Your task to perform on an android device: Check the weather Image 0: 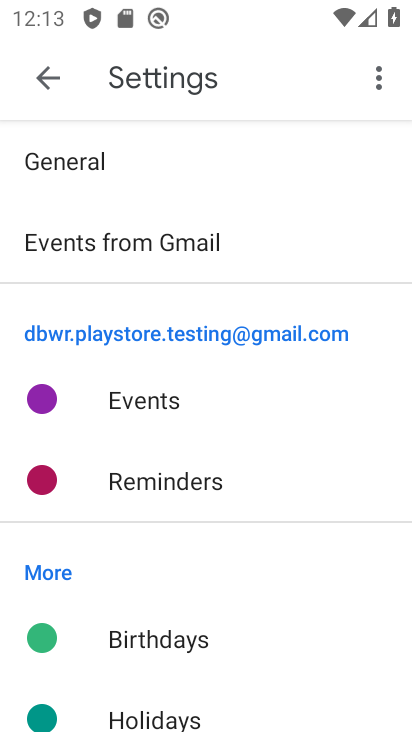
Step 0: press home button
Your task to perform on an android device: Check the weather Image 1: 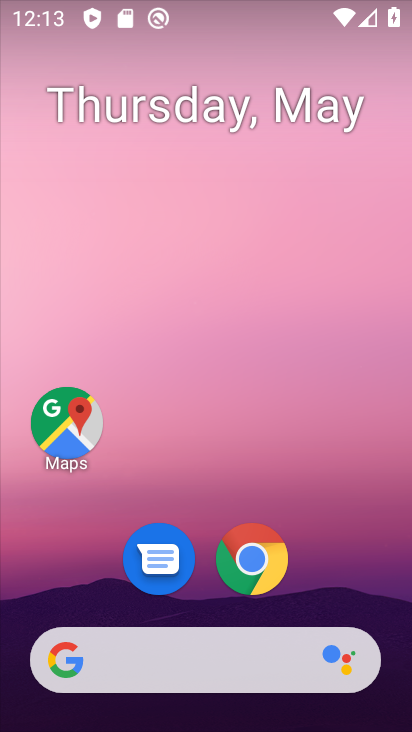
Step 1: click (243, 580)
Your task to perform on an android device: Check the weather Image 2: 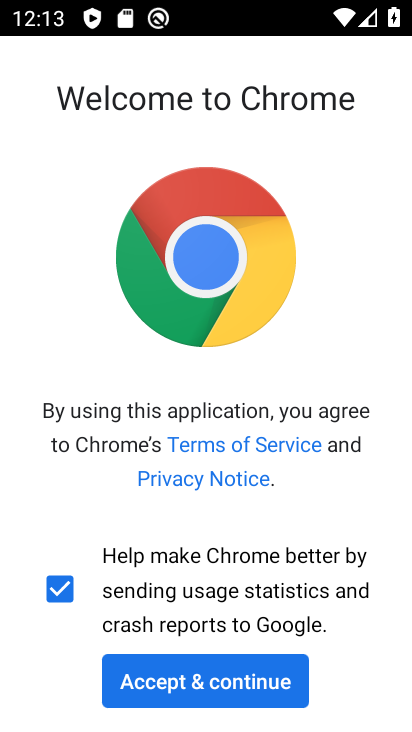
Step 2: click (233, 682)
Your task to perform on an android device: Check the weather Image 3: 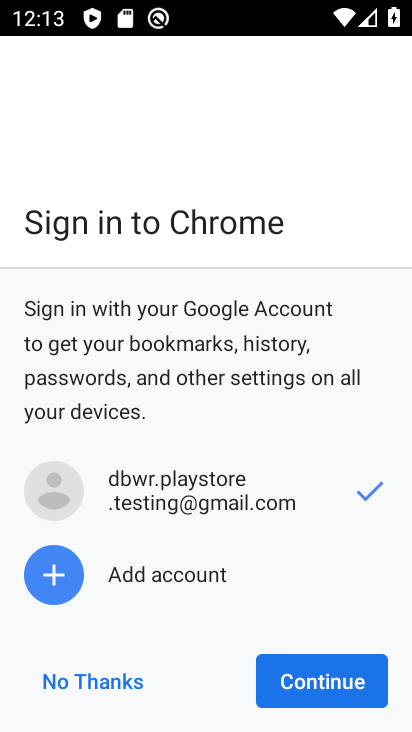
Step 3: click (373, 693)
Your task to perform on an android device: Check the weather Image 4: 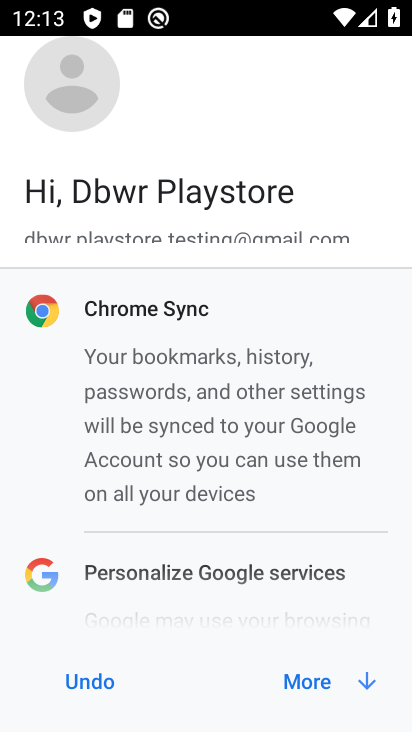
Step 4: click (373, 693)
Your task to perform on an android device: Check the weather Image 5: 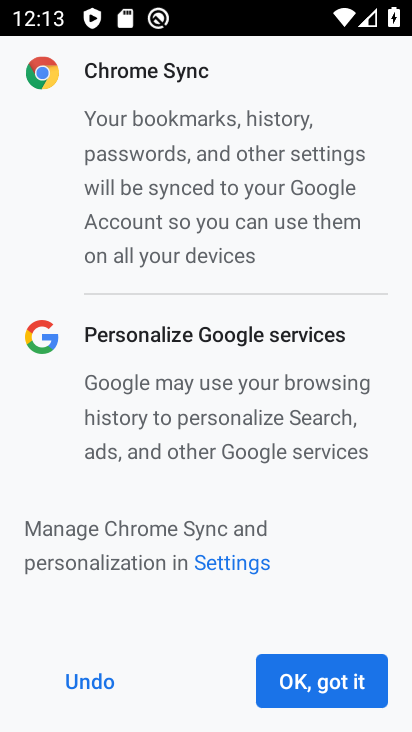
Step 5: click (371, 693)
Your task to perform on an android device: Check the weather Image 6: 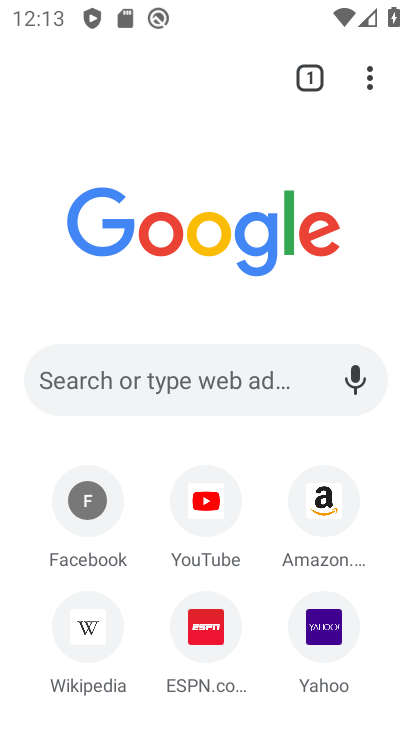
Step 6: click (293, 386)
Your task to perform on an android device: Check the weather Image 7: 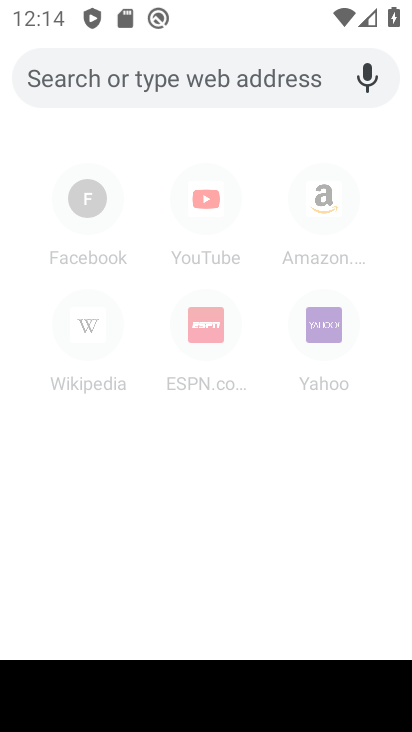
Step 7: type " weather"
Your task to perform on an android device: Check the weather Image 8: 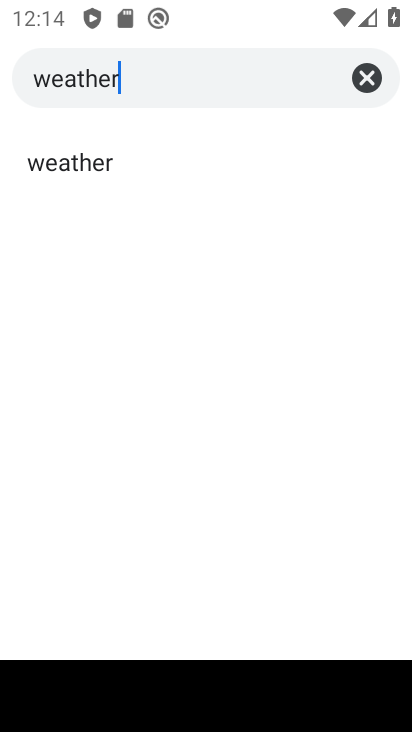
Step 8: type ""
Your task to perform on an android device: Check the weather Image 9: 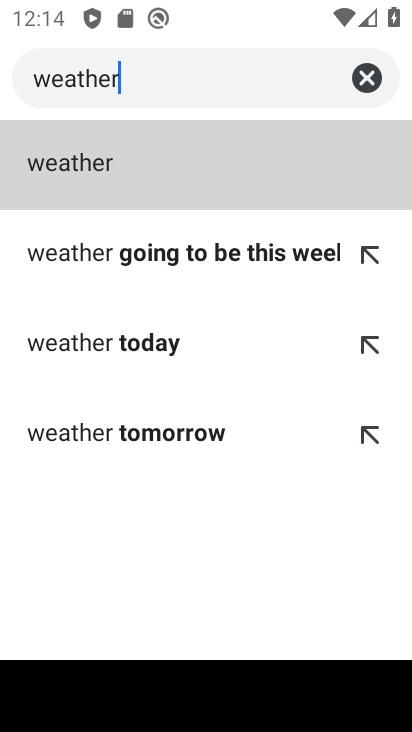
Step 9: click (255, 139)
Your task to perform on an android device: Check the weather Image 10: 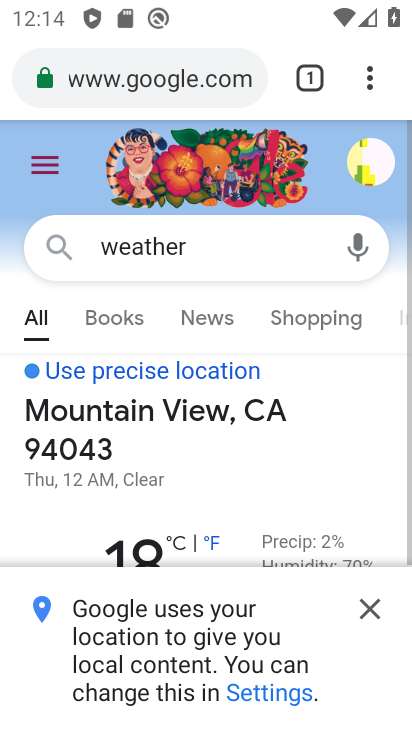
Step 10: task complete